Your task to perform on an android device: turn vacation reply on in the gmail app Image 0: 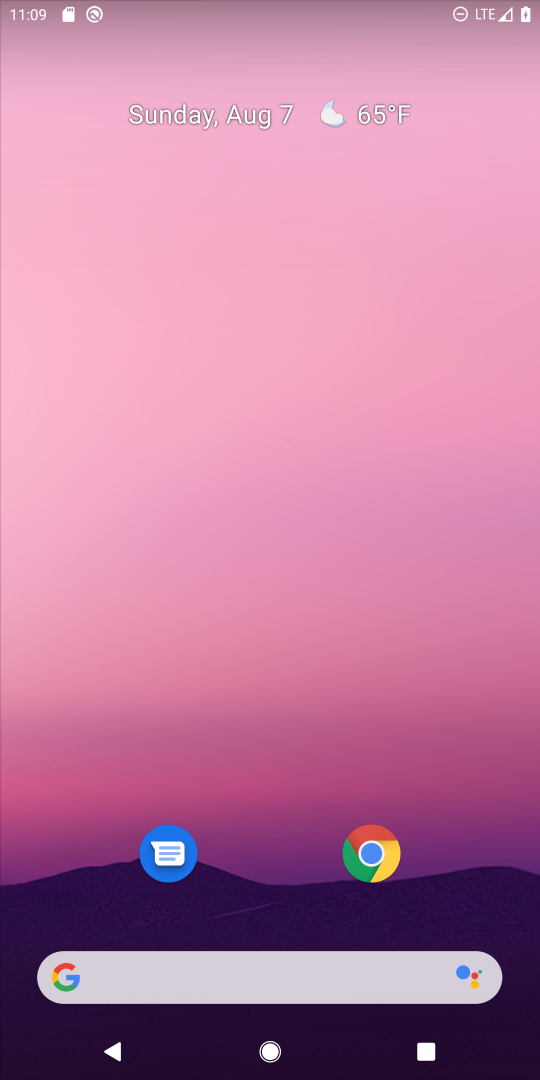
Step 0: drag from (244, 852) to (319, 453)
Your task to perform on an android device: turn vacation reply on in the gmail app Image 1: 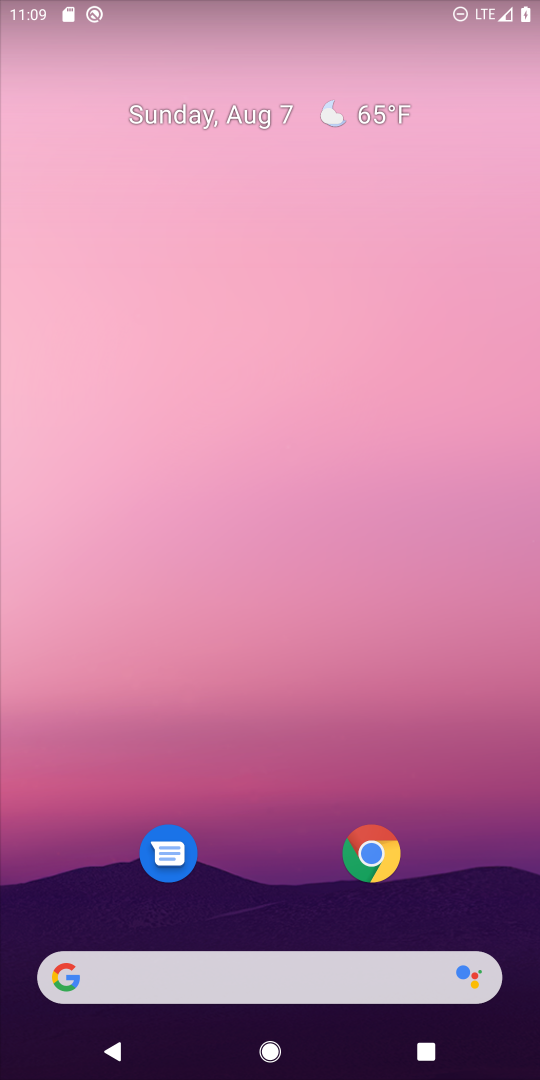
Step 1: drag from (235, 15) to (287, 0)
Your task to perform on an android device: turn vacation reply on in the gmail app Image 2: 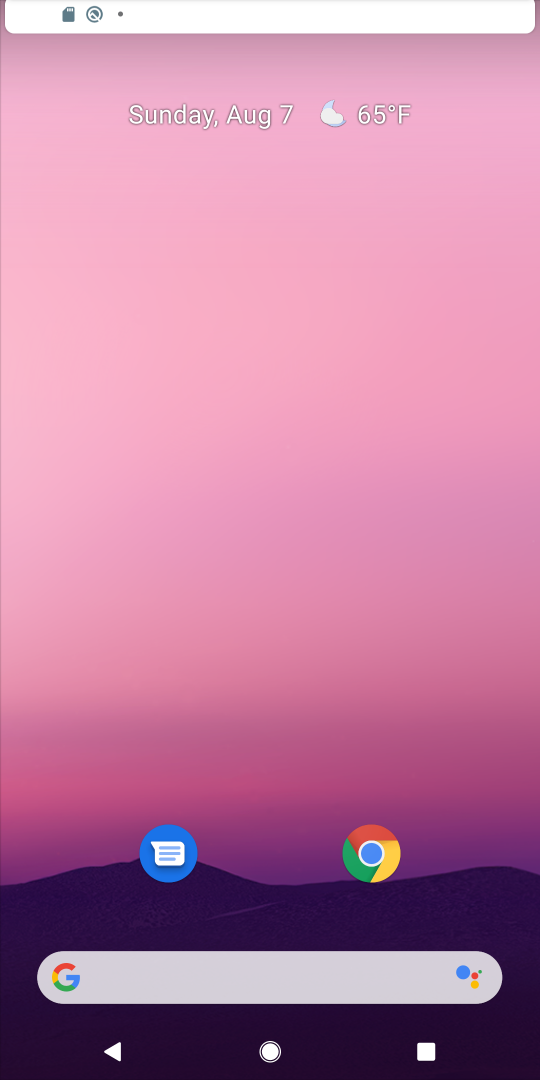
Step 2: drag from (232, 890) to (208, 176)
Your task to perform on an android device: turn vacation reply on in the gmail app Image 3: 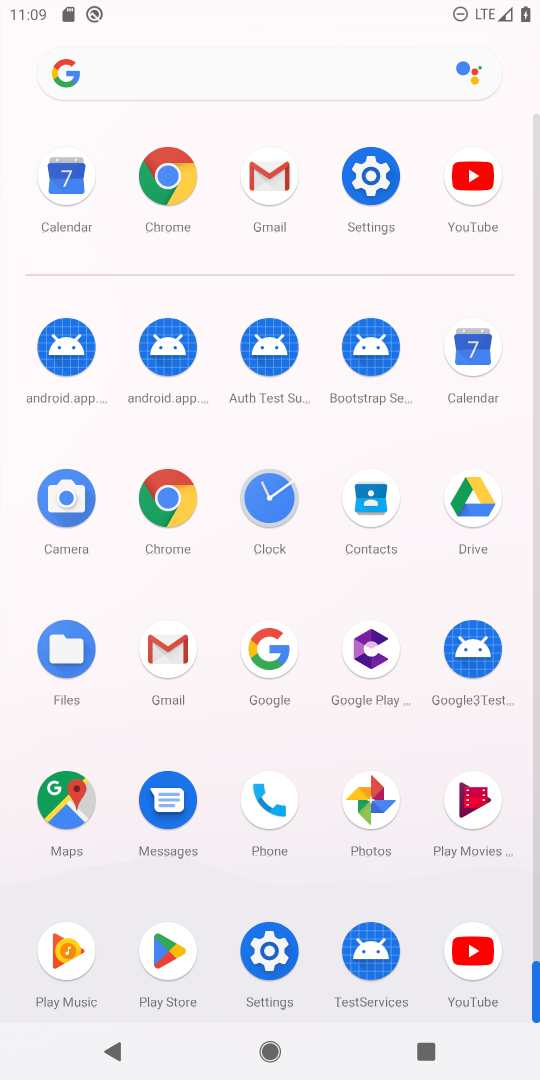
Step 3: click (270, 186)
Your task to perform on an android device: turn vacation reply on in the gmail app Image 4: 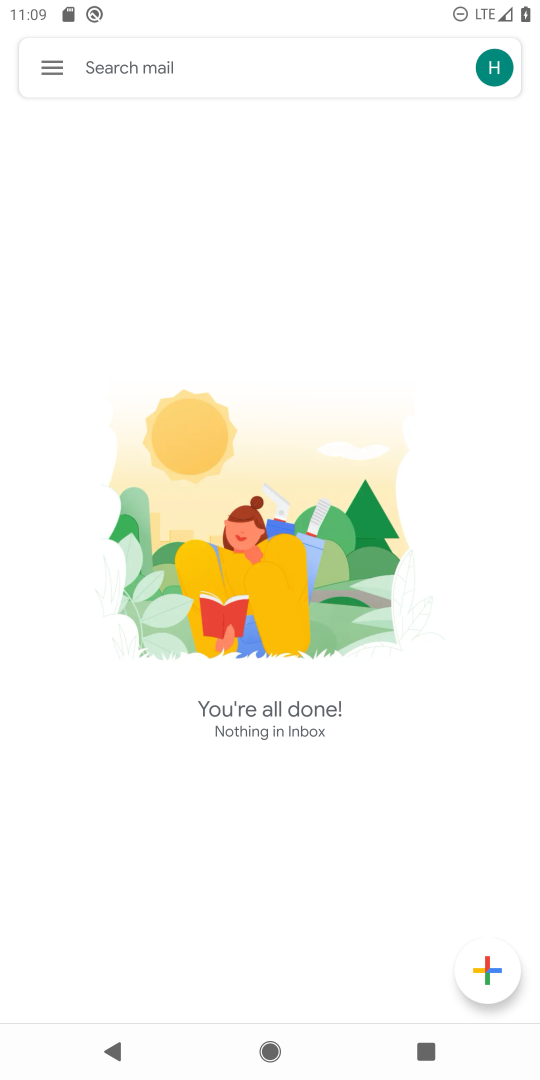
Step 4: click (54, 54)
Your task to perform on an android device: turn vacation reply on in the gmail app Image 5: 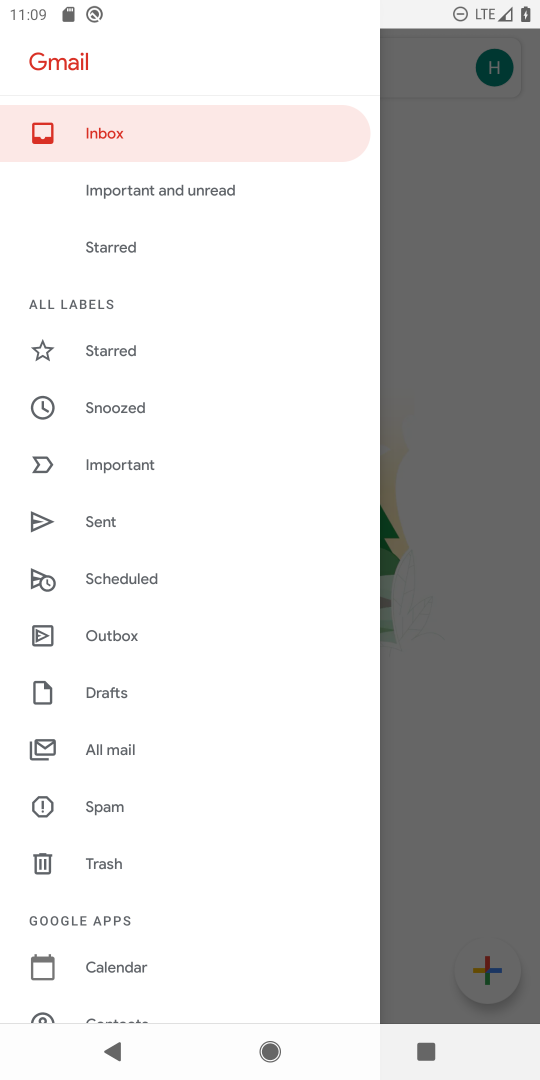
Step 5: drag from (102, 848) to (88, 249)
Your task to perform on an android device: turn vacation reply on in the gmail app Image 6: 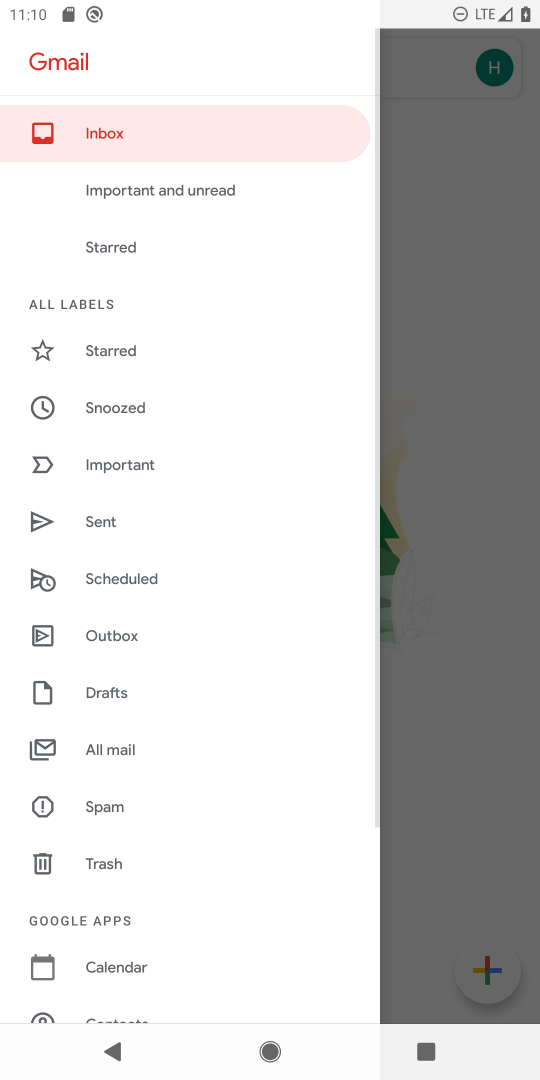
Step 6: drag from (196, 928) to (157, 247)
Your task to perform on an android device: turn vacation reply on in the gmail app Image 7: 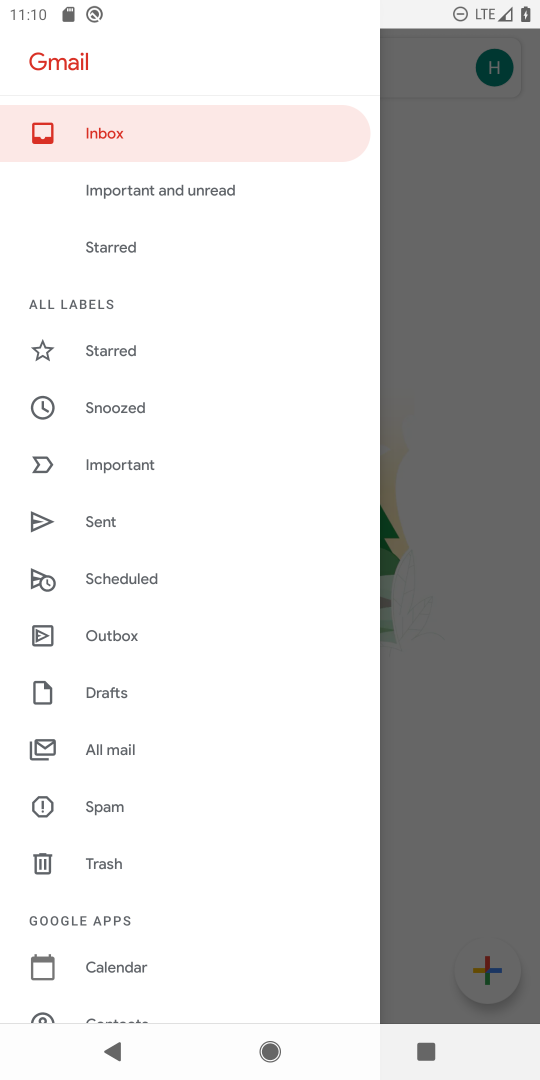
Step 7: drag from (181, 926) to (159, 136)
Your task to perform on an android device: turn vacation reply on in the gmail app Image 8: 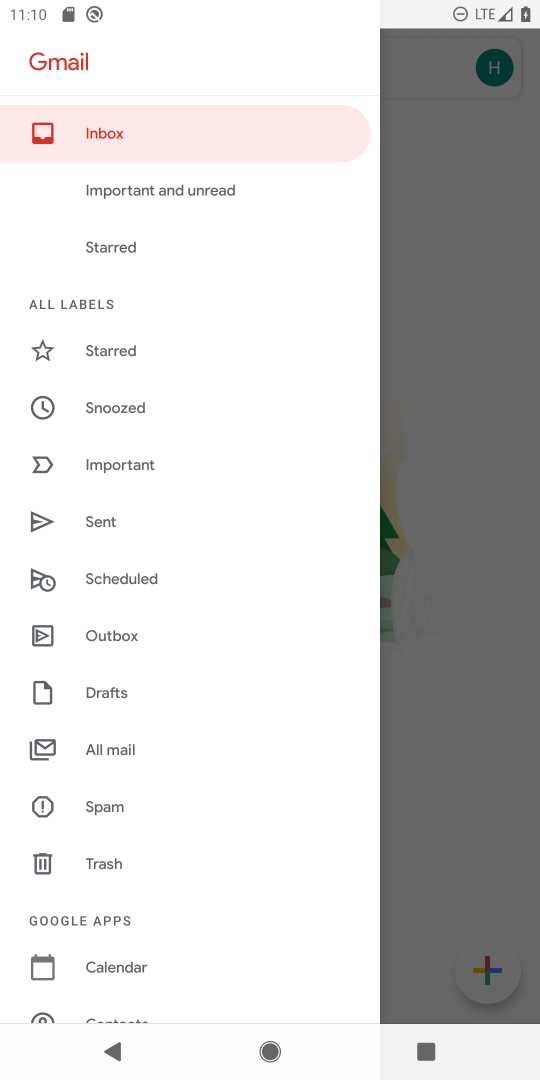
Step 8: drag from (141, 931) to (146, 296)
Your task to perform on an android device: turn vacation reply on in the gmail app Image 9: 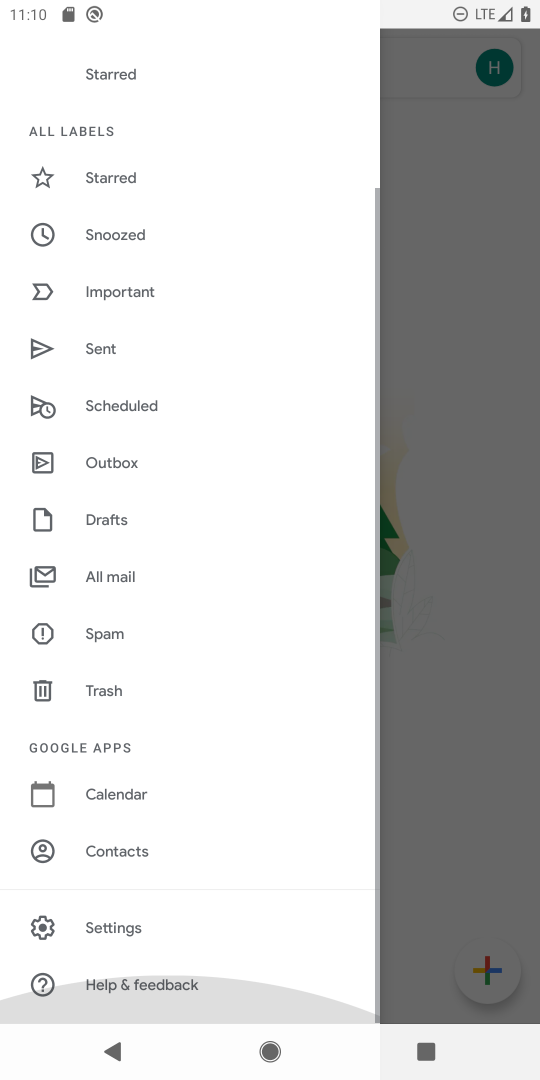
Step 9: drag from (228, 661) to (233, 355)
Your task to perform on an android device: turn vacation reply on in the gmail app Image 10: 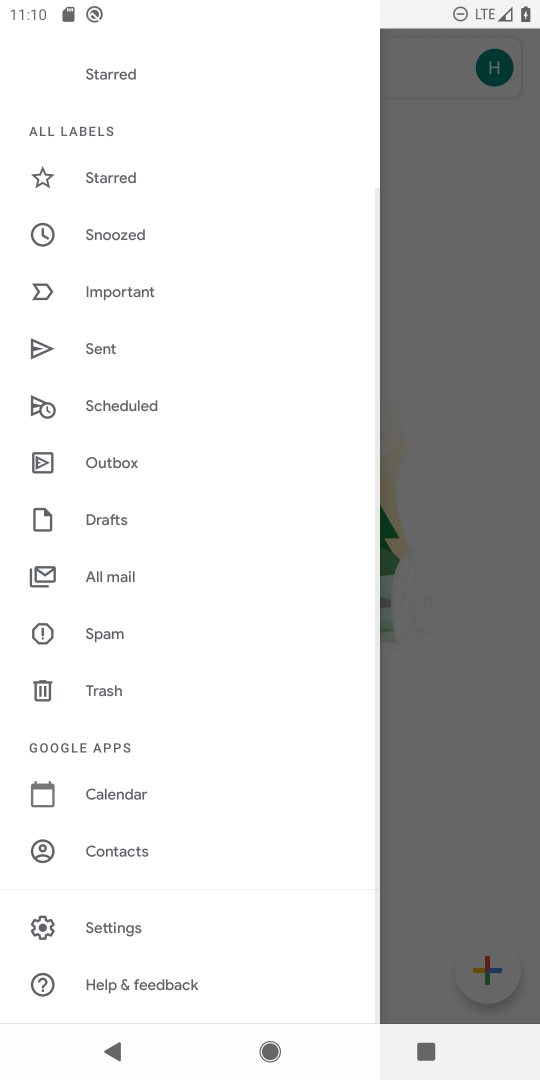
Step 10: click (119, 940)
Your task to perform on an android device: turn vacation reply on in the gmail app Image 11: 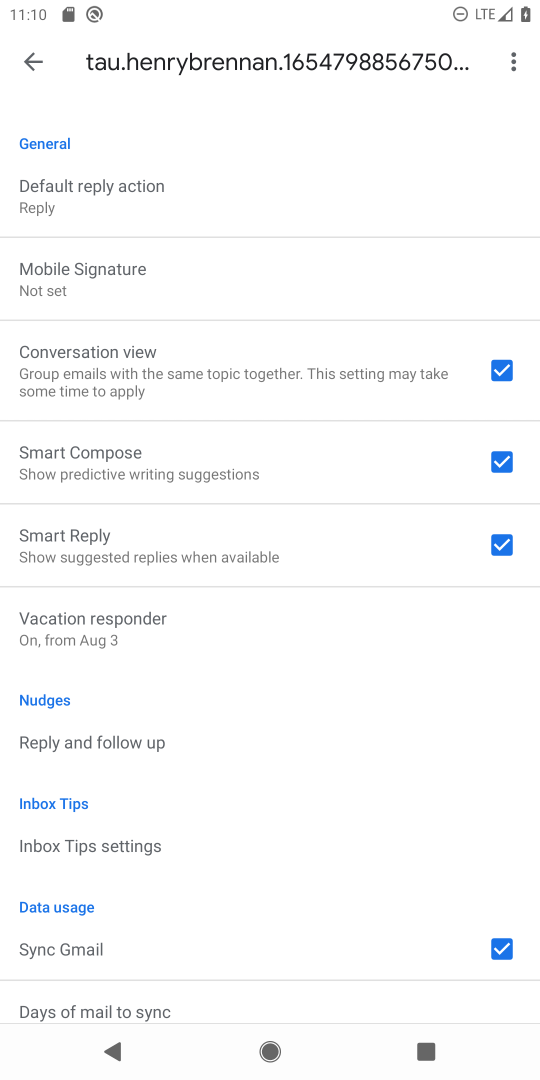
Step 11: click (156, 613)
Your task to perform on an android device: turn vacation reply on in the gmail app Image 12: 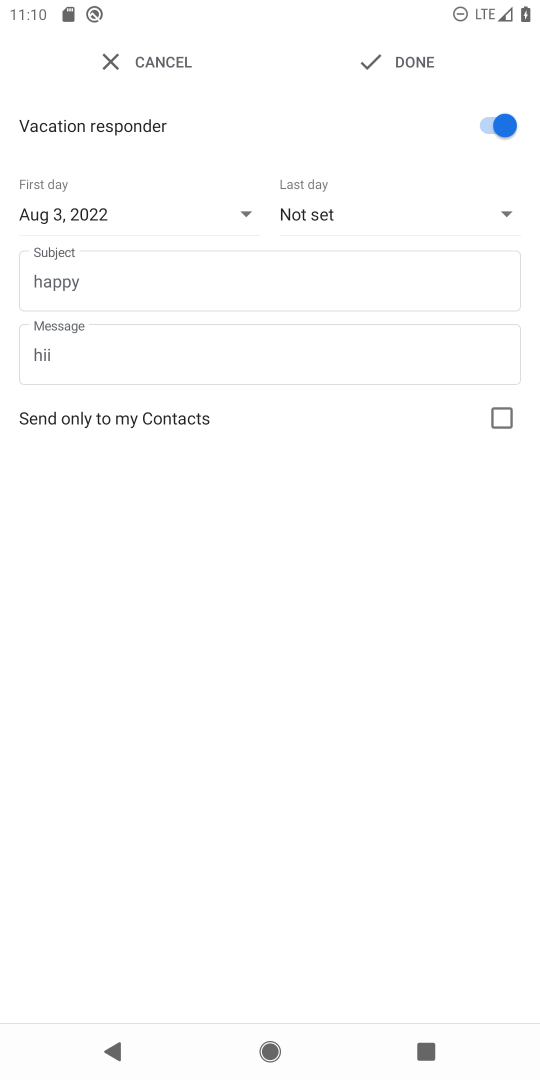
Step 12: task complete